Your task to perform on an android device: Search for vegetarian restaurants on Maps Image 0: 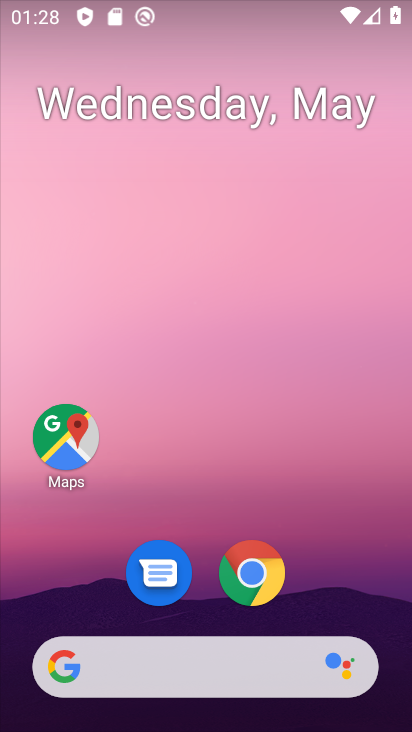
Step 0: click (64, 442)
Your task to perform on an android device: Search for vegetarian restaurants on Maps Image 1: 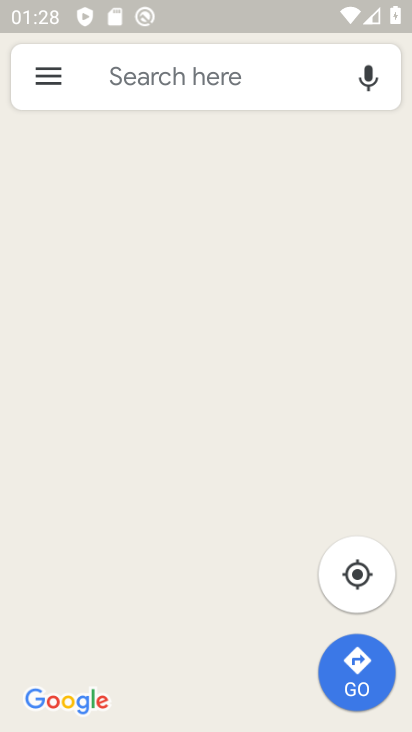
Step 1: click (234, 75)
Your task to perform on an android device: Search for vegetarian restaurants on Maps Image 2: 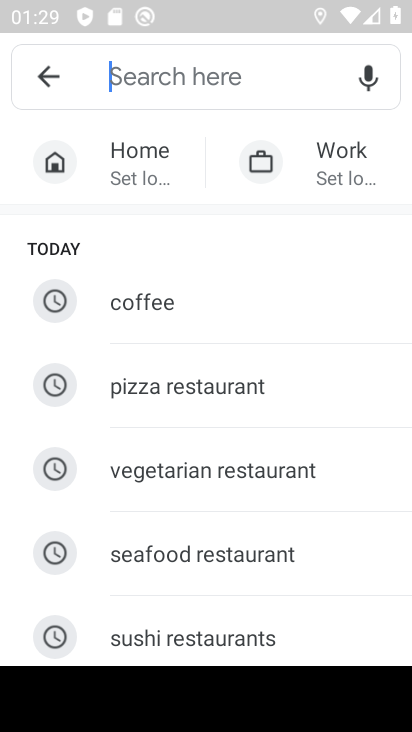
Step 2: type "vegetarian restaurants"
Your task to perform on an android device: Search for vegetarian restaurants on Maps Image 3: 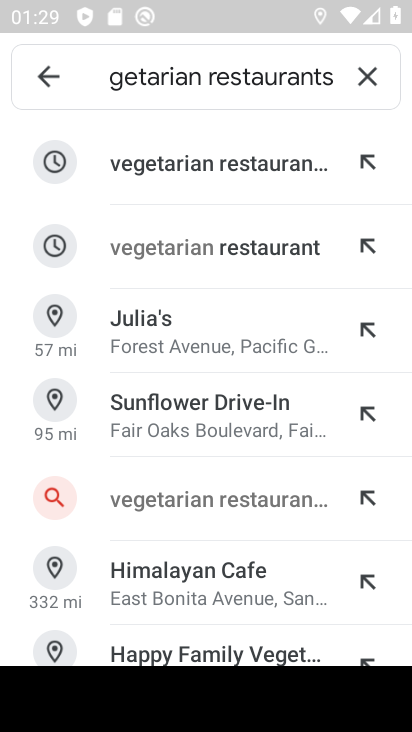
Step 3: click (248, 159)
Your task to perform on an android device: Search for vegetarian restaurants on Maps Image 4: 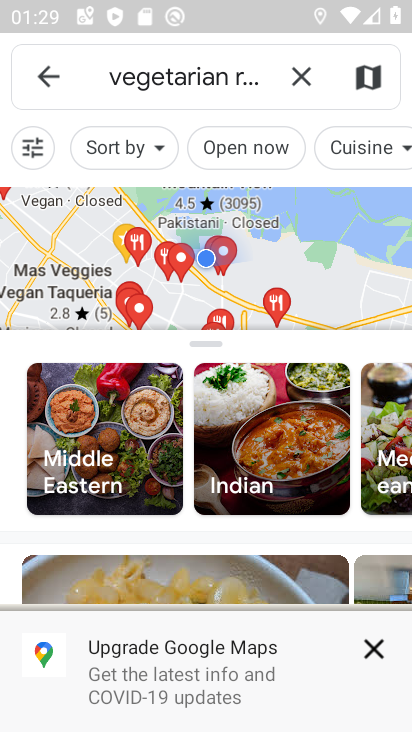
Step 4: click (372, 649)
Your task to perform on an android device: Search for vegetarian restaurants on Maps Image 5: 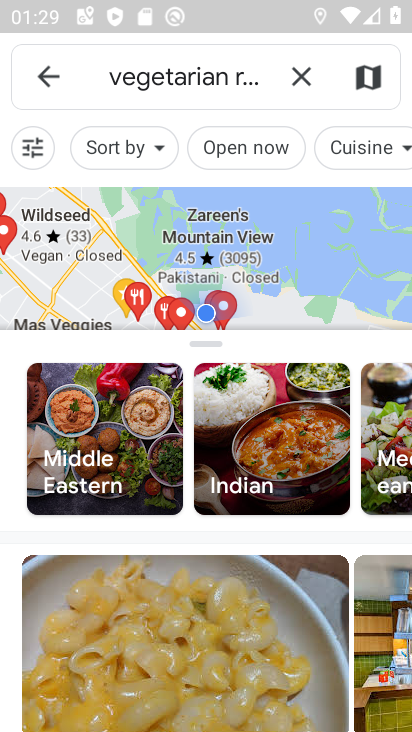
Step 5: task complete